Your task to perform on an android device: set an alarm Image 0: 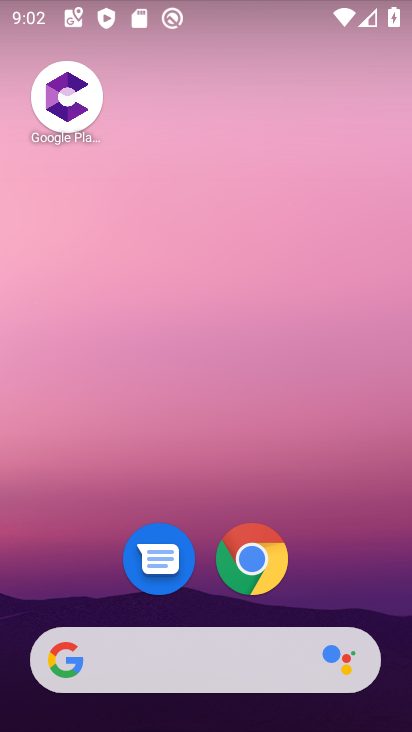
Step 0: drag from (57, 621) to (187, 181)
Your task to perform on an android device: set an alarm Image 1: 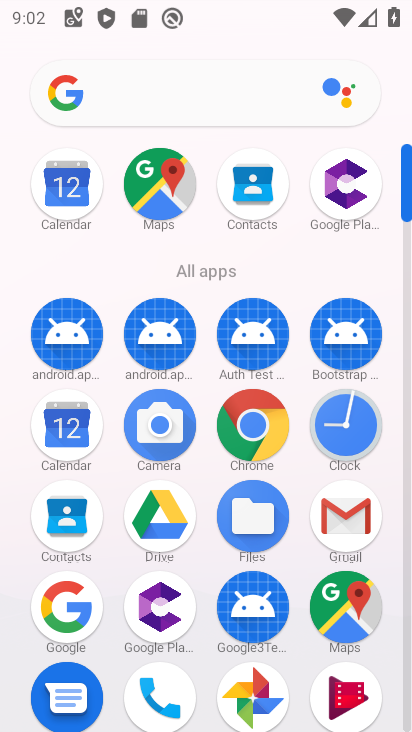
Step 1: click (362, 434)
Your task to perform on an android device: set an alarm Image 2: 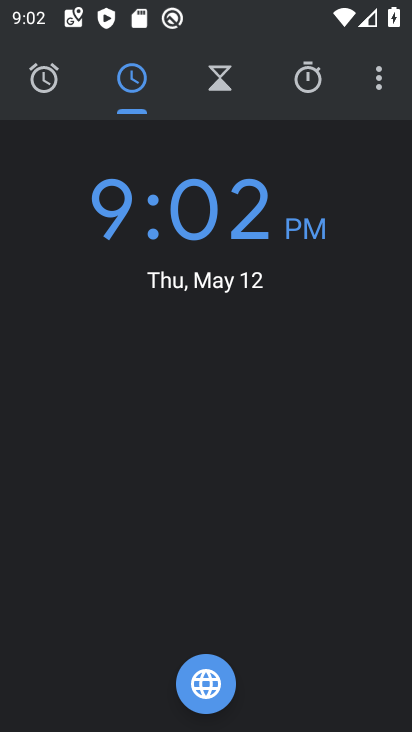
Step 2: click (23, 96)
Your task to perform on an android device: set an alarm Image 3: 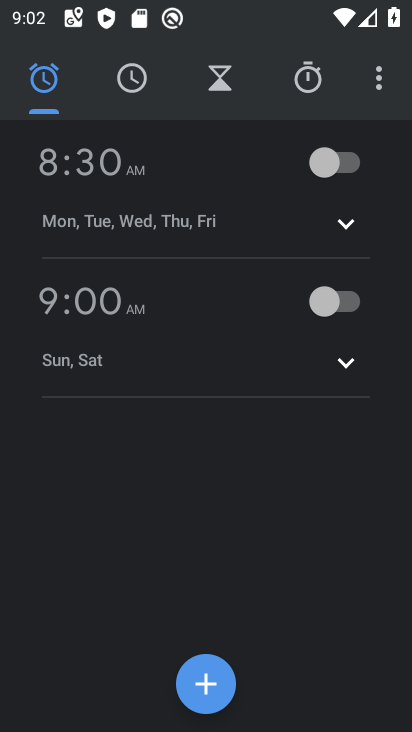
Step 3: click (353, 179)
Your task to perform on an android device: set an alarm Image 4: 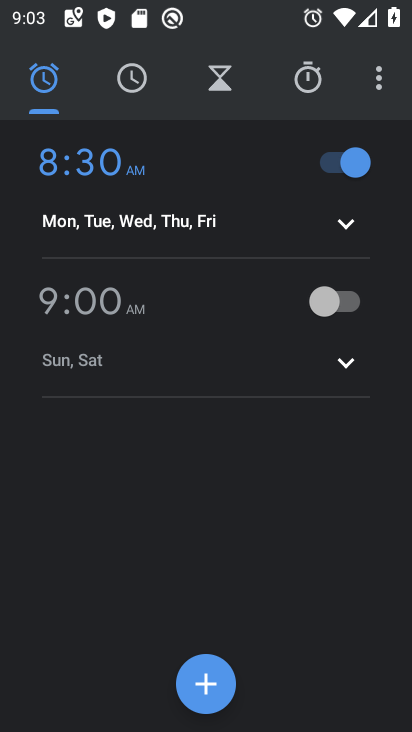
Step 4: task complete